Your task to perform on an android device: Open my contact list Image 0: 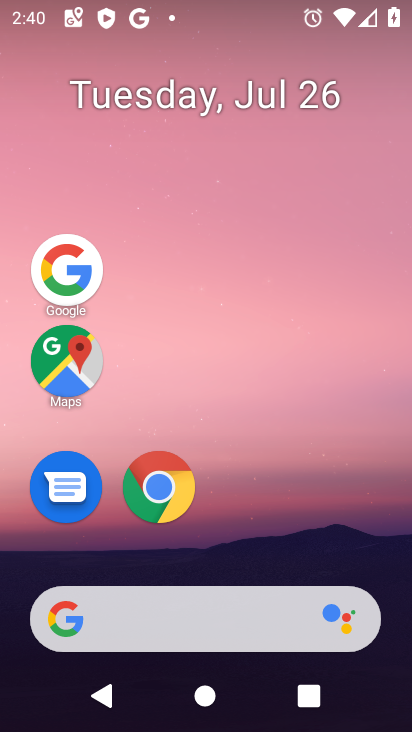
Step 0: drag from (230, 539) to (258, 312)
Your task to perform on an android device: Open my contact list Image 1: 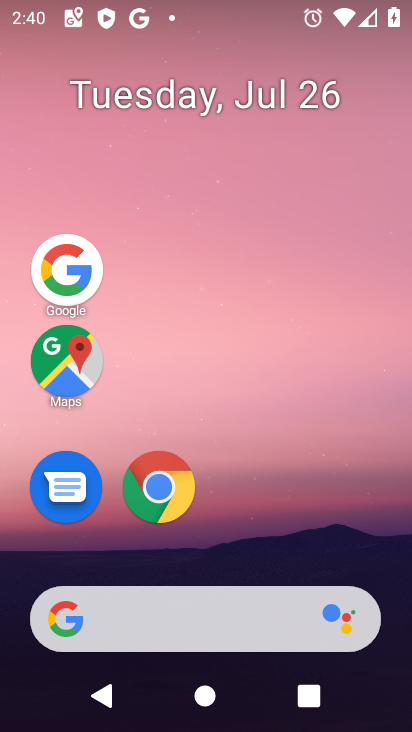
Step 1: drag from (216, 587) to (218, 212)
Your task to perform on an android device: Open my contact list Image 2: 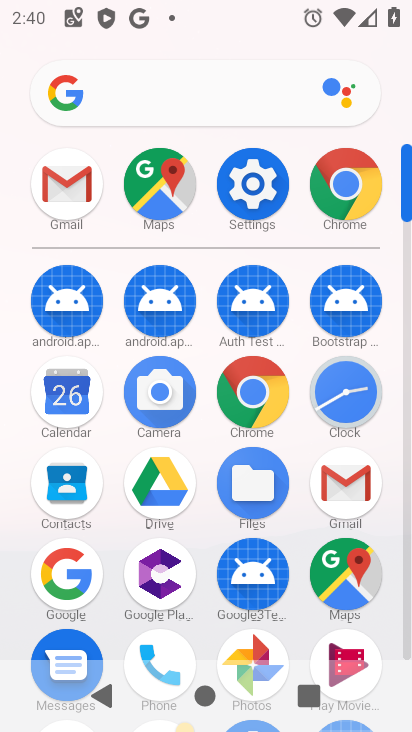
Step 2: click (83, 498)
Your task to perform on an android device: Open my contact list Image 3: 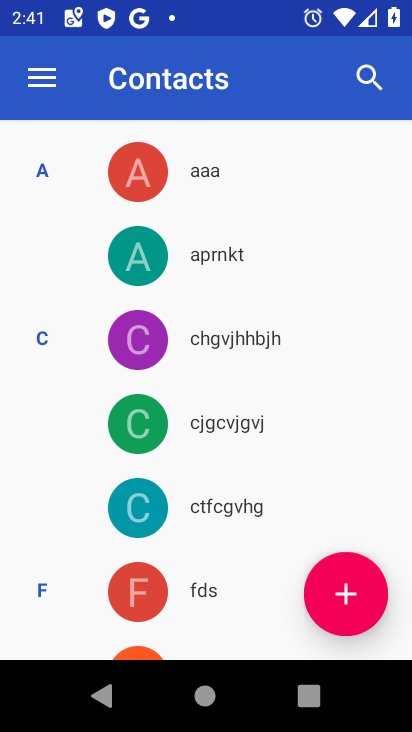
Step 3: task complete